Your task to perform on an android device: Go to Reddit.com Image 0: 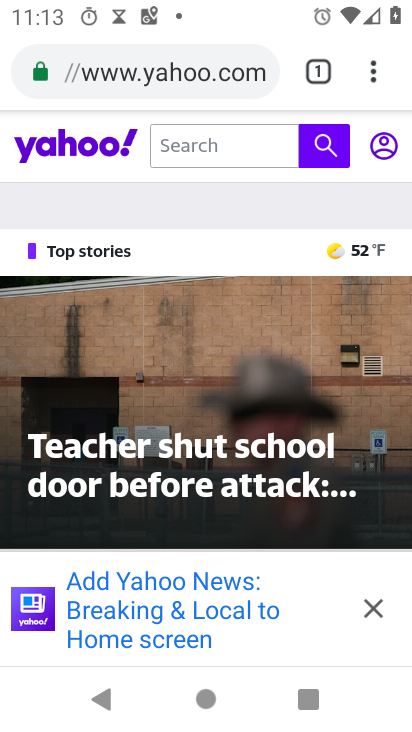
Step 0: press home button
Your task to perform on an android device: Go to Reddit.com Image 1: 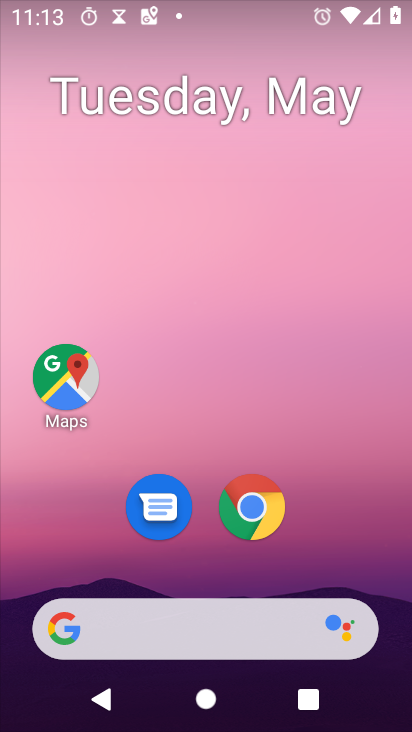
Step 1: click (251, 507)
Your task to perform on an android device: Go to Reddit.com Image 2: 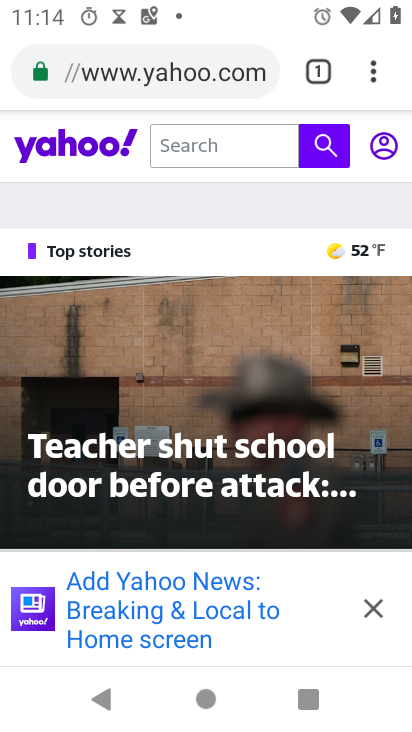
Step 2: click (197, 69)
Your task to perform on an android device: Go to Reddit.com Image 3: 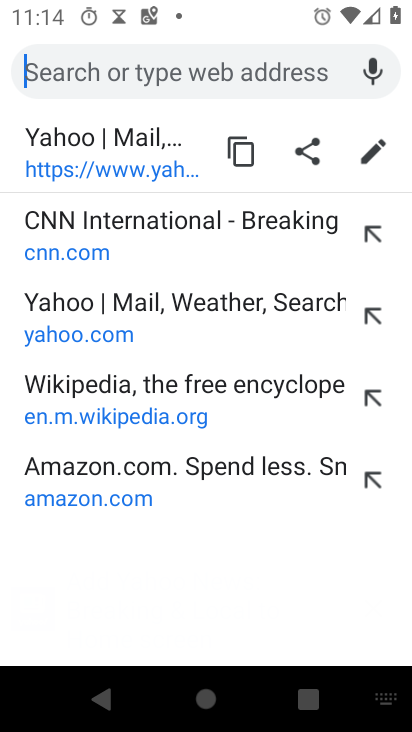
Step 3: type "Reddit.com"
Your task to perform on an android device: Go to Reddit.com Image 4: 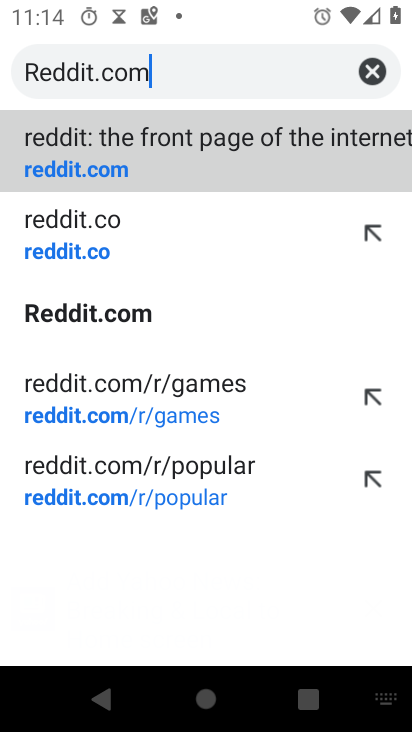
Step 4: type ""
Your task to perform on an android device: Go to Reddit.com Image 5: 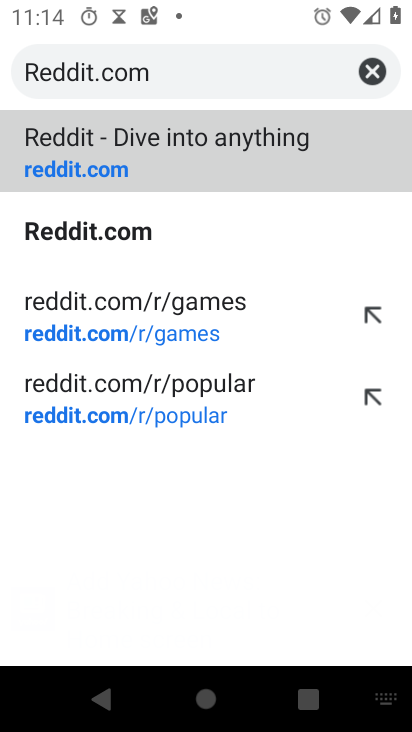
Step 5: click (144, 220)
Your task to perform on an android device: Go to Reddit.com Image 6: 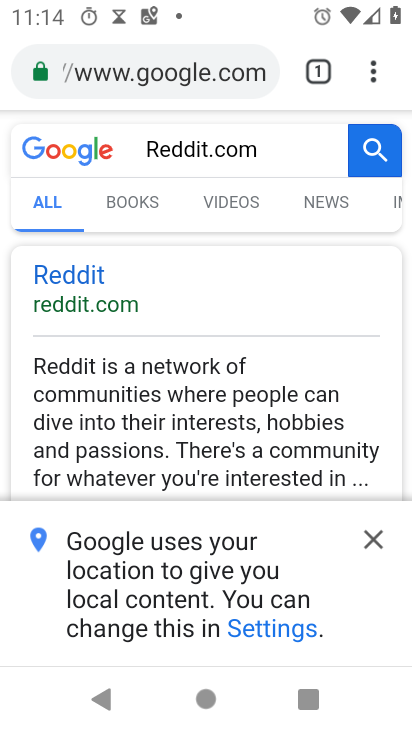
Step 6: click (86, 282)
Your task to perform on an android device: Go to Reddit.com Image 7: 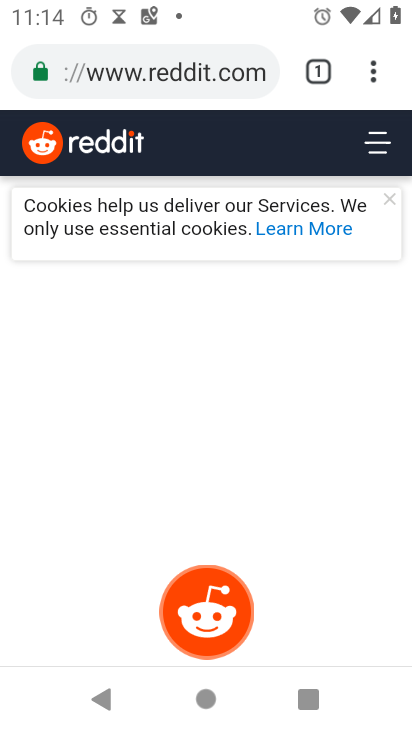
Step 7: task complete